Your task to perform on an android device: Search for alienware aurora on ebay.com, select the first entry, and add it to the cart. Image 0: 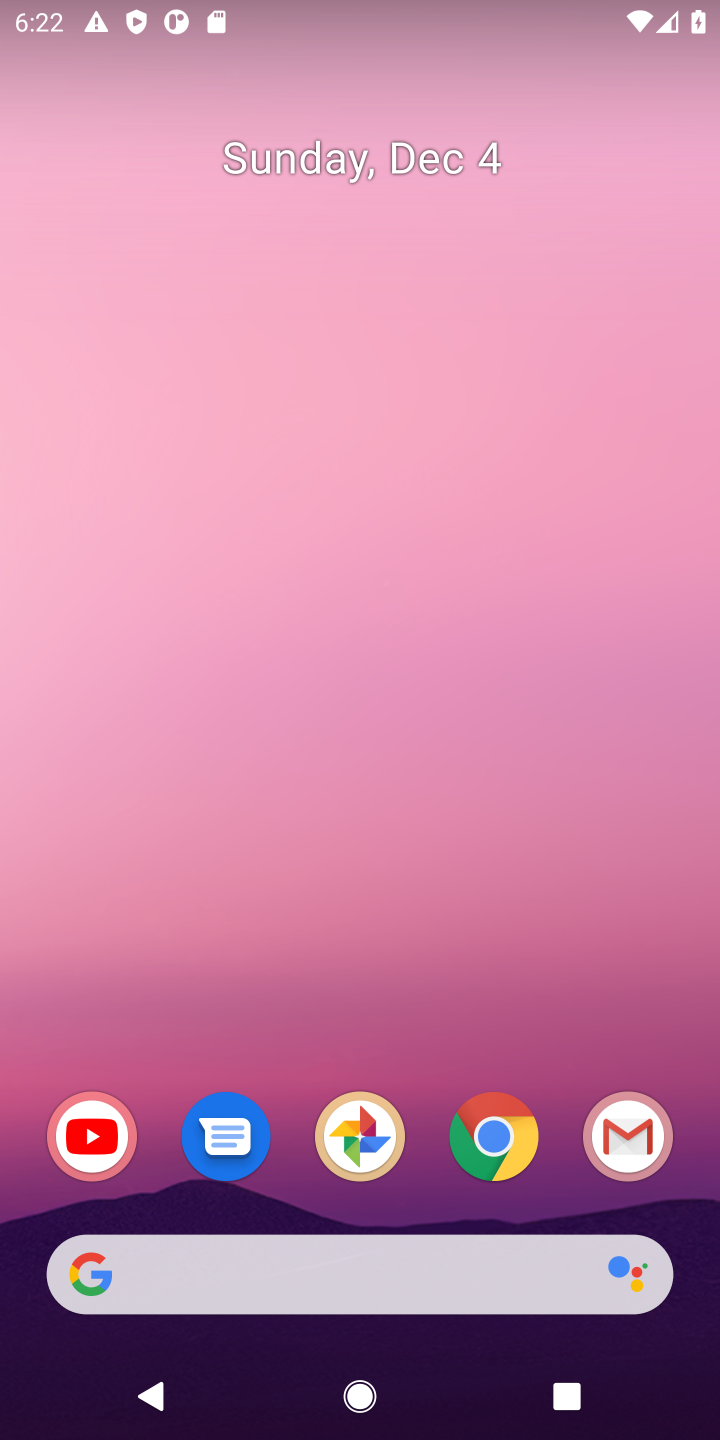
Step 0: click (466, 1145)
Your task to perform on an android device: Search for alienware aurora on ebay.com, select the first entry, and add it to the cart. Image 1: 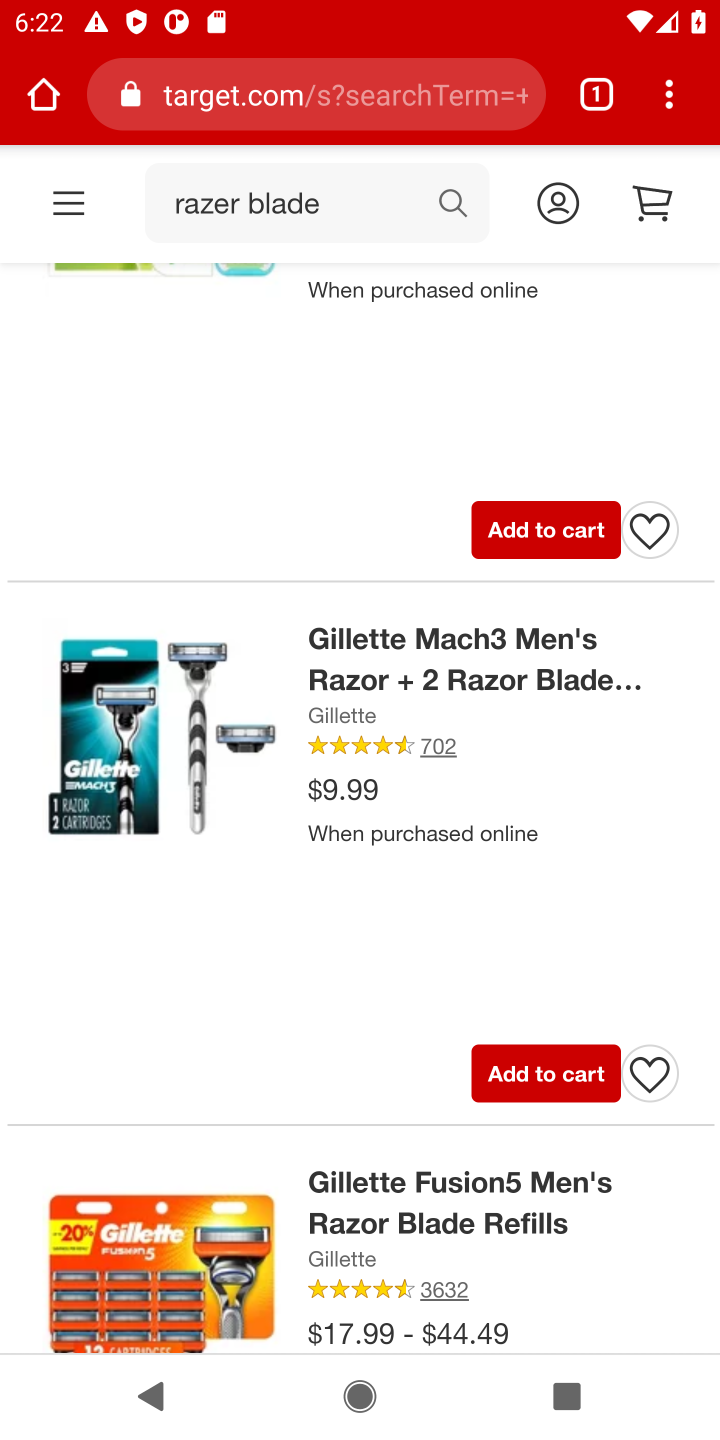
Step 1: click (271, 88)
Your task to perform on an android device: Search for alienware aurora on ebay.com, select the first entry, and add it to the cart. Image 2: 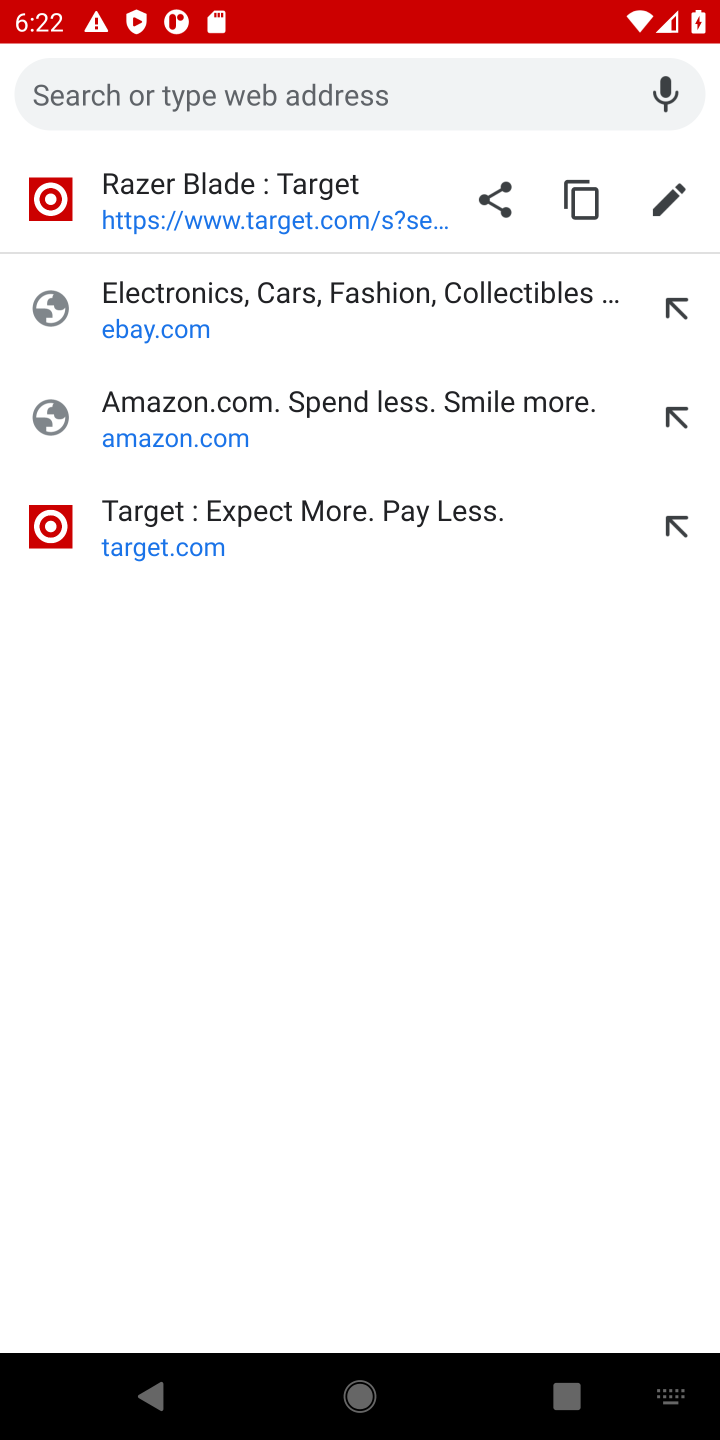
Step 2: click (139, 325)
Your task to perform on an android device: Search for alienware aurora on ebay.com, select the first entry, and add it to the cart. Image 3: 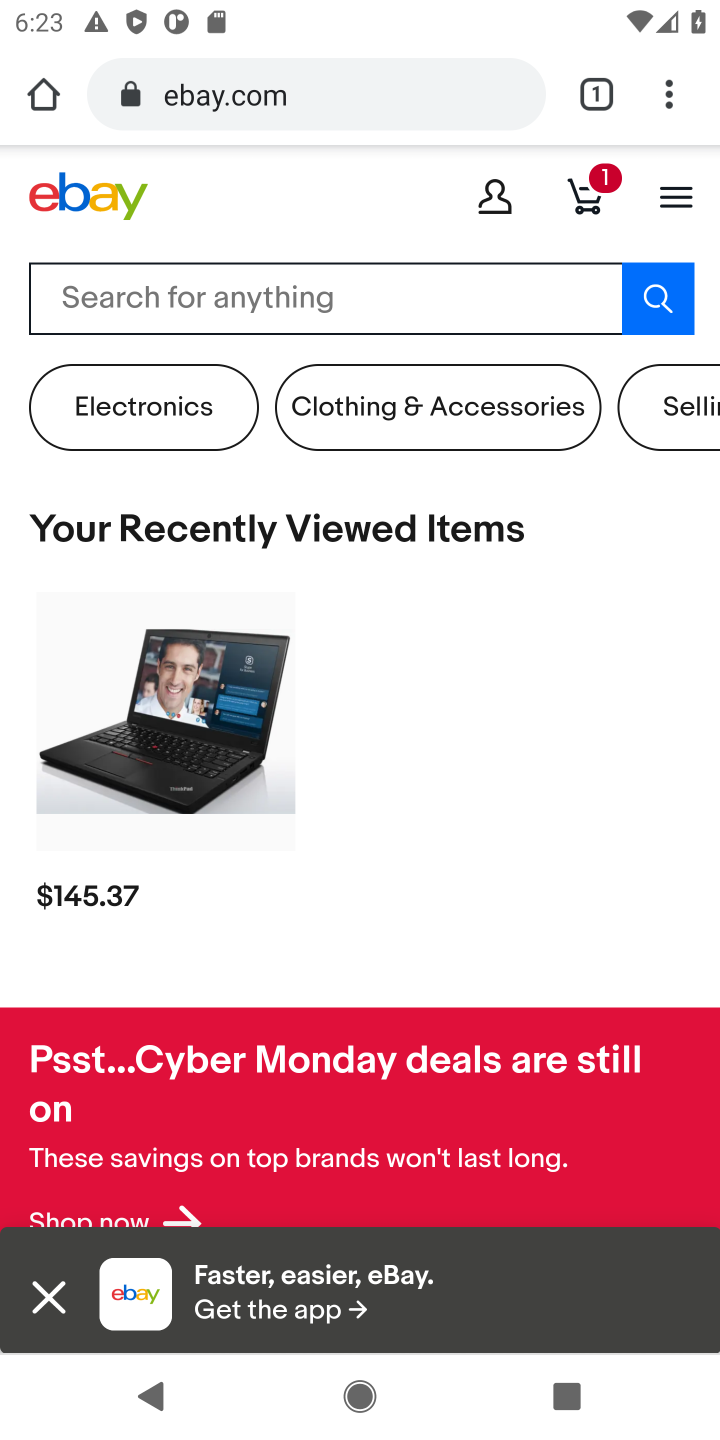
Step 3: click (160, 306)
Your task to perform on an android device: Search for alienware aurora on ebay.com, select the first entry, and add it to the cart. Image 4: 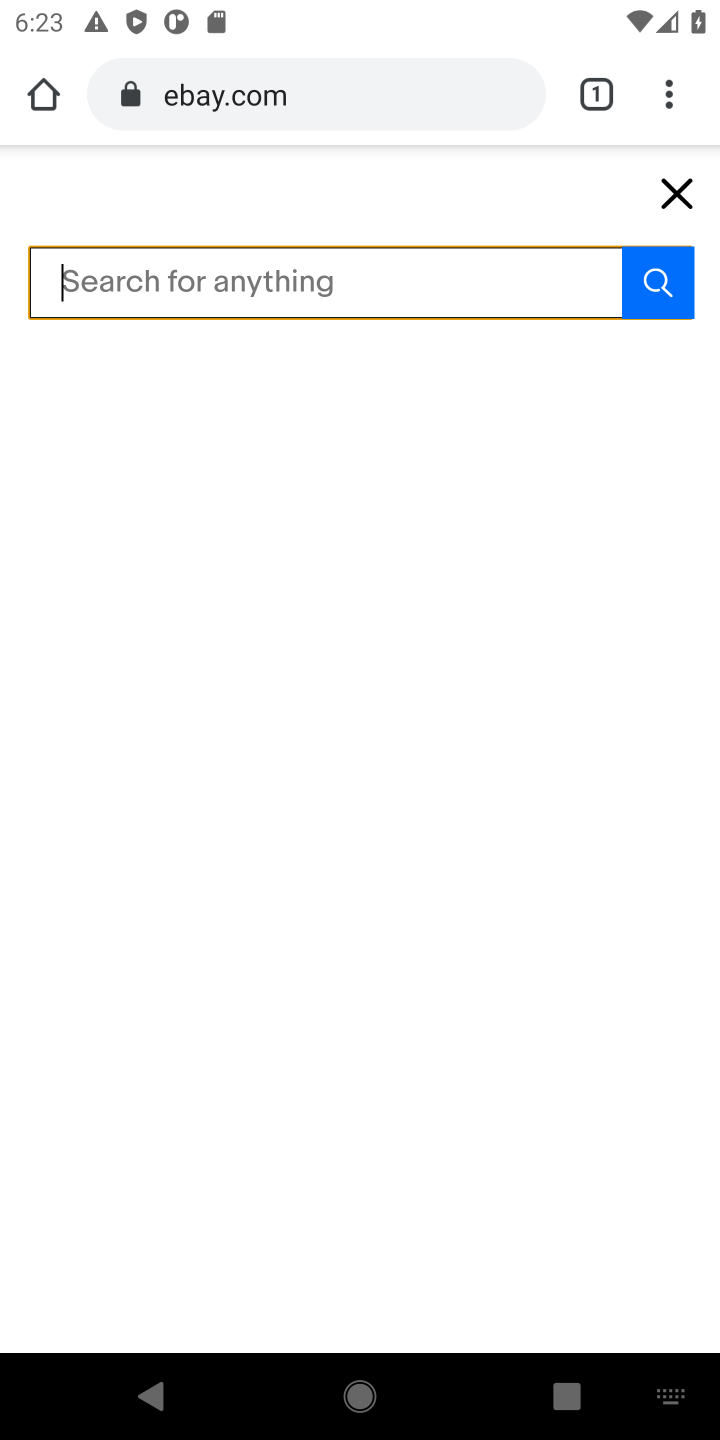
Step 4: type "alienware aurora"
Your task to perform on an android device: Search for alienware aurora on ebay.com, select the first entry, and add it to the cart. Image 5: 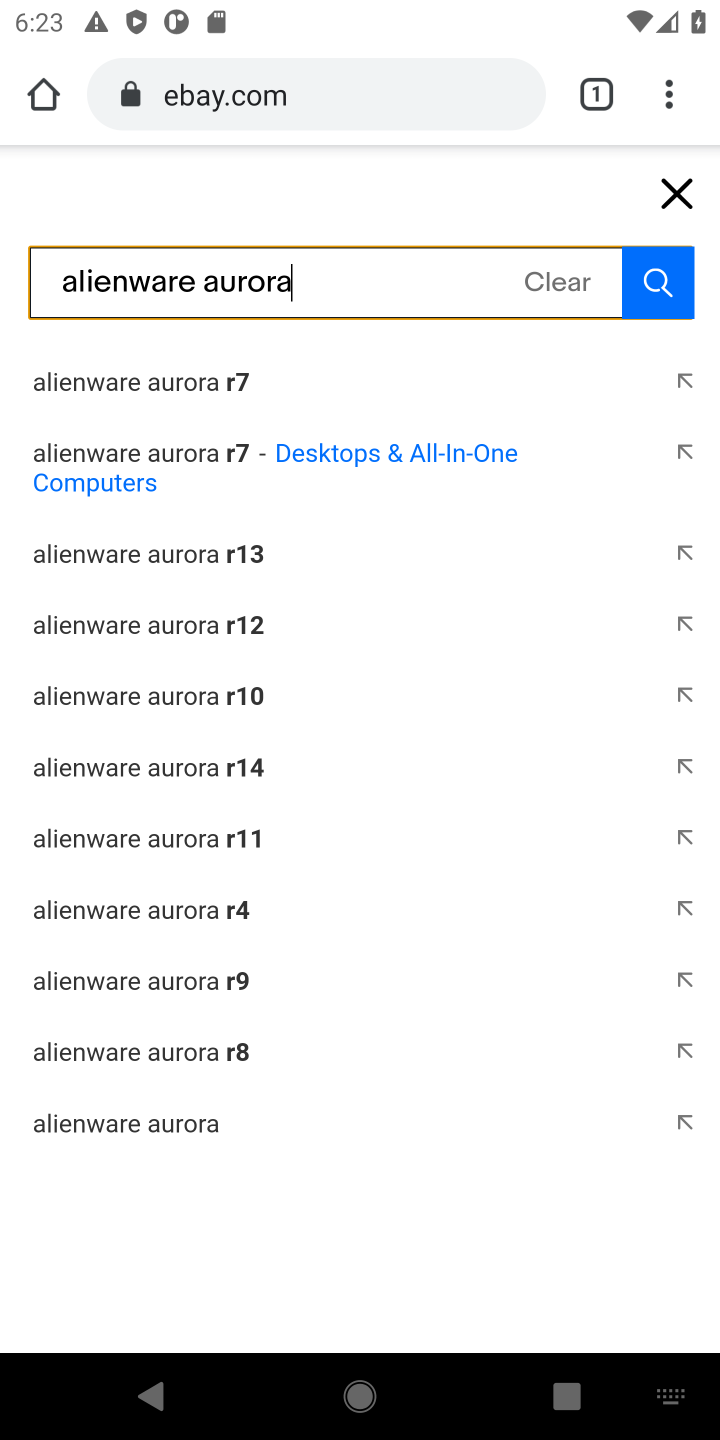
Step 5: click (156, 1126)
Your task to perform on an android device: Search for alienware aurora on ebay.com, select the first entry, and add it to the cart. Image 6: 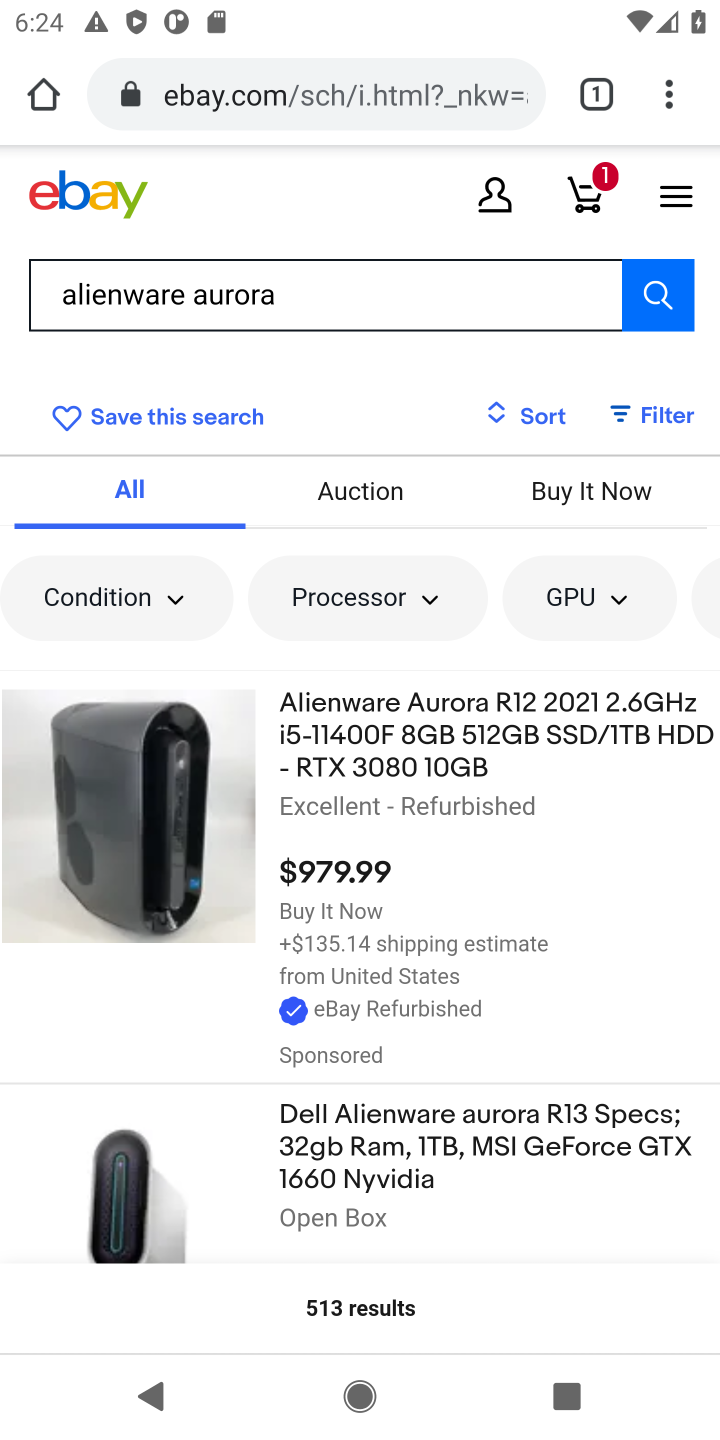
Step 6: click (382, 777)
Your task to perform on an android device: Search for alienware aurora on ebay.com, select the first entry, and add it to the cart. Image 7: 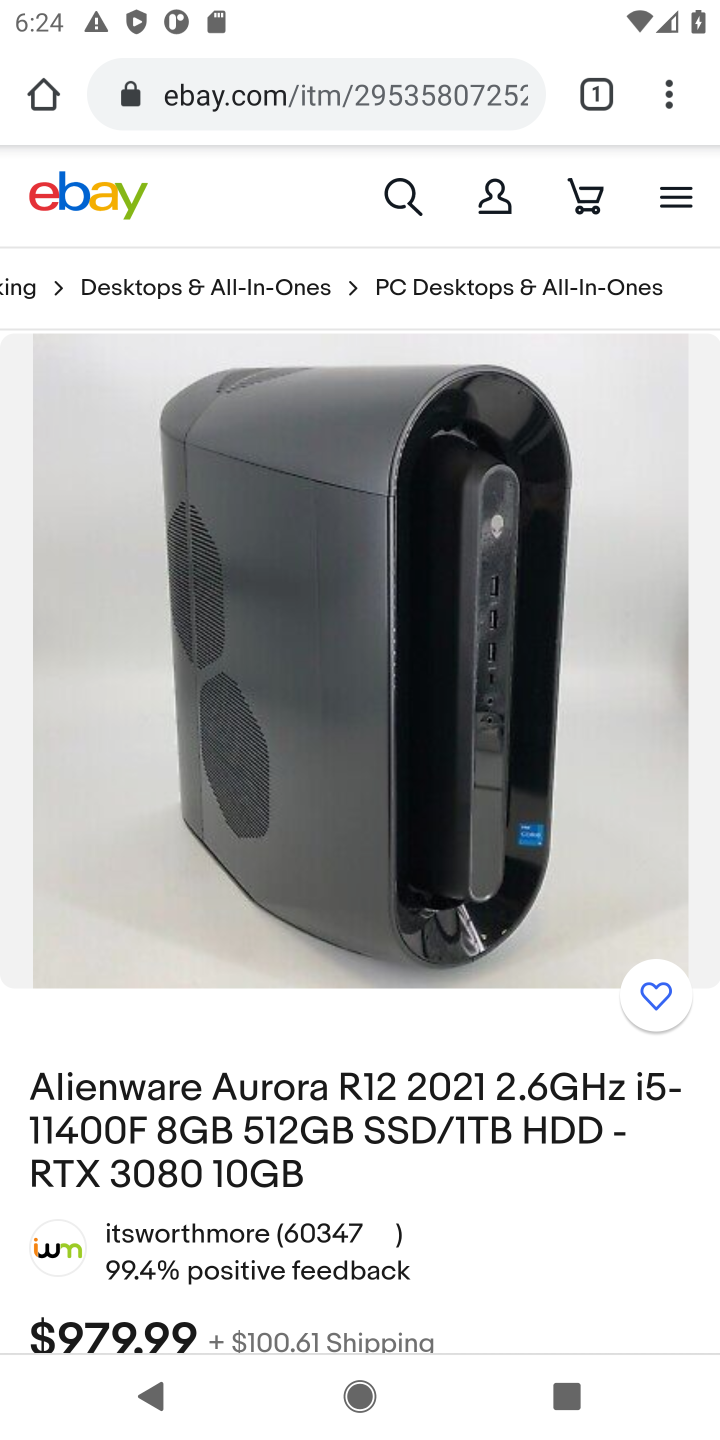
Step 7: drag from (349, 1017) to (304, 519)
Your task to perform on an android device: Search for alienware aurora on ebay.com, select the first entry, and add it to the cart. Image 8: 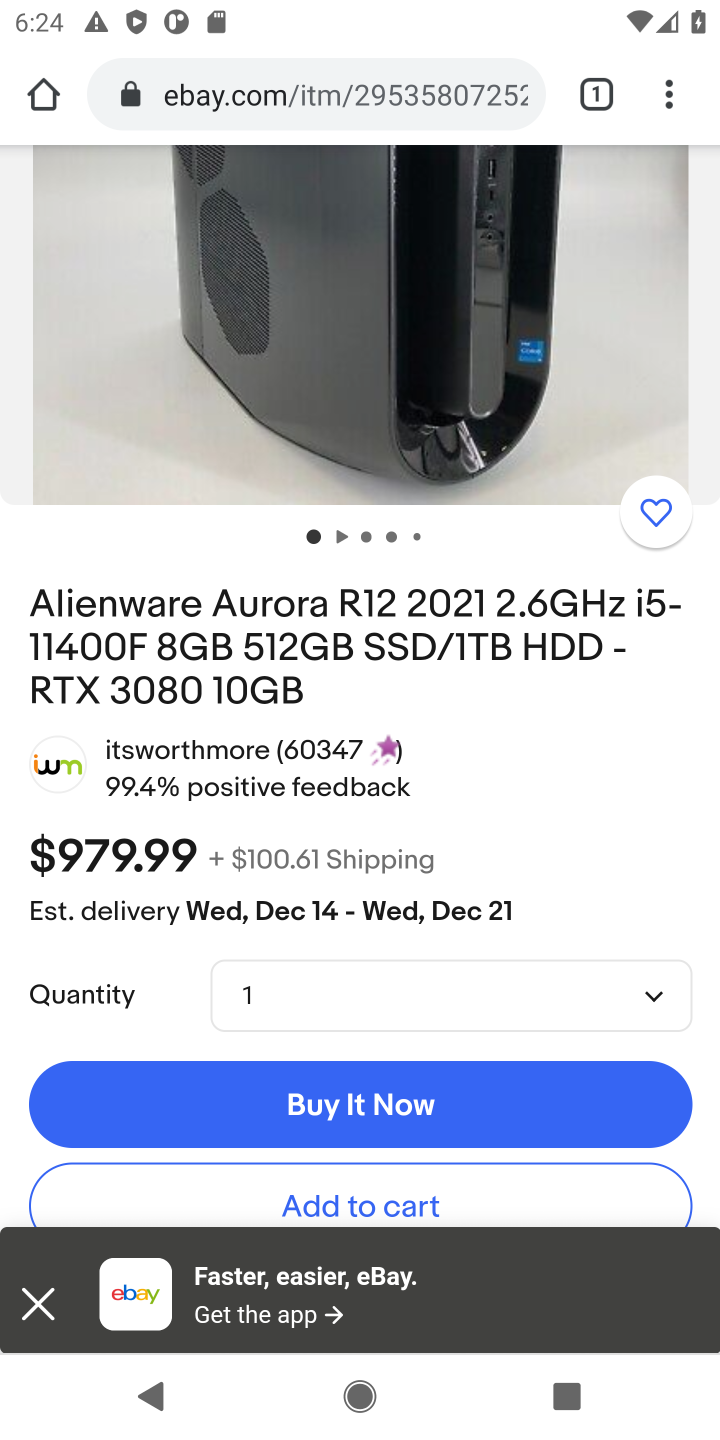
Step 8: drag from (466, 817) to (424, 436)
Your task to perform on an android device: Search for alienware aurora on ebay.com, select the first entry, and add it to the cart. Image 9: 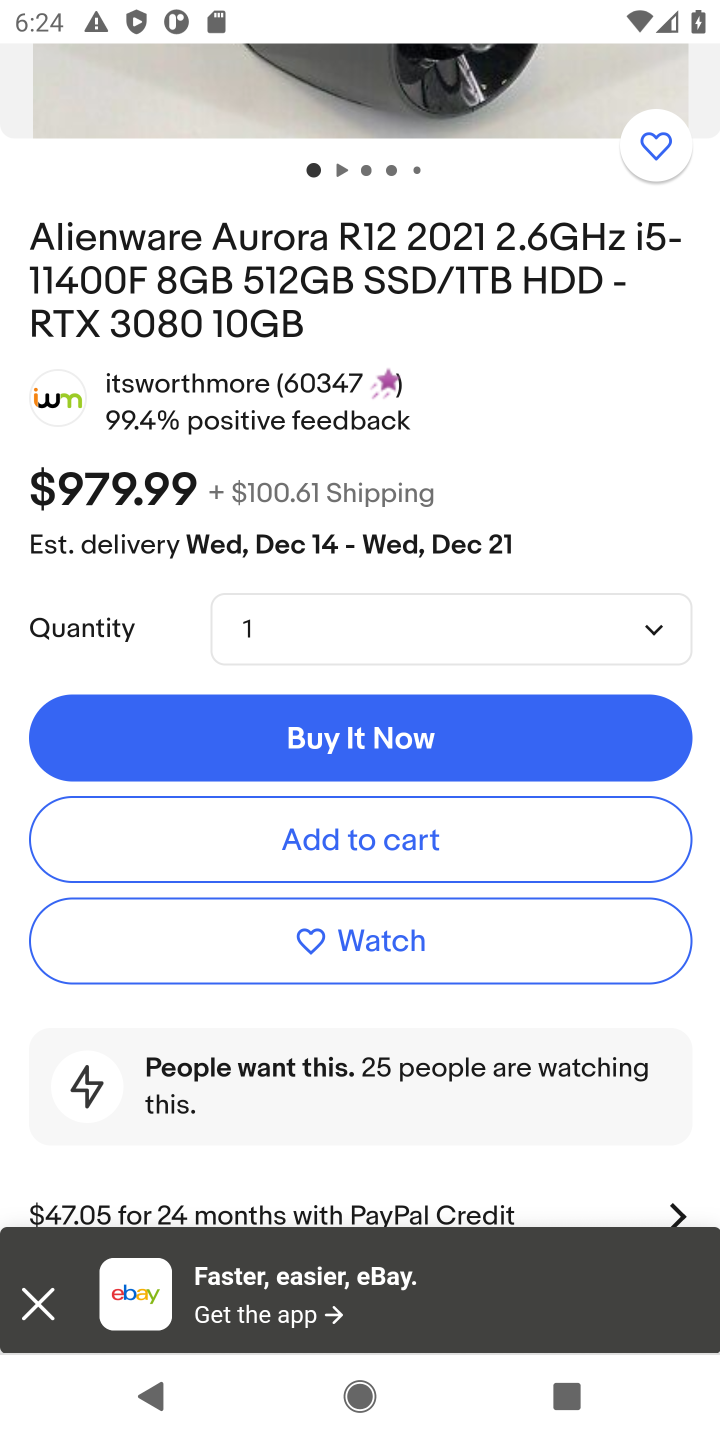
Step 9: click (322, 826)
Your task to perform on an android device: Search for alienware aurora on ebay.com, select the first entry, and add it to the cart. Image 10: 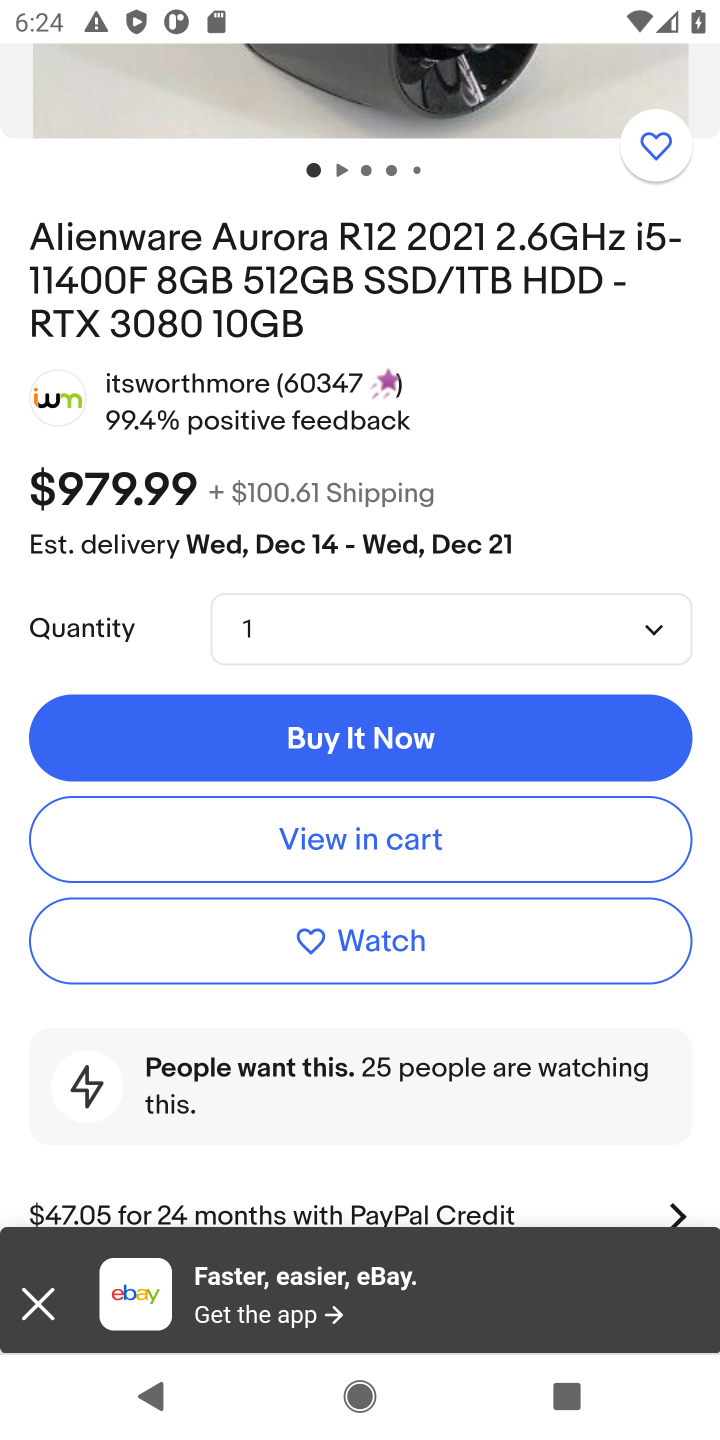
Step 10: task complete